Your task to perform on an android device: turn off translation in the chrome app Image 0: 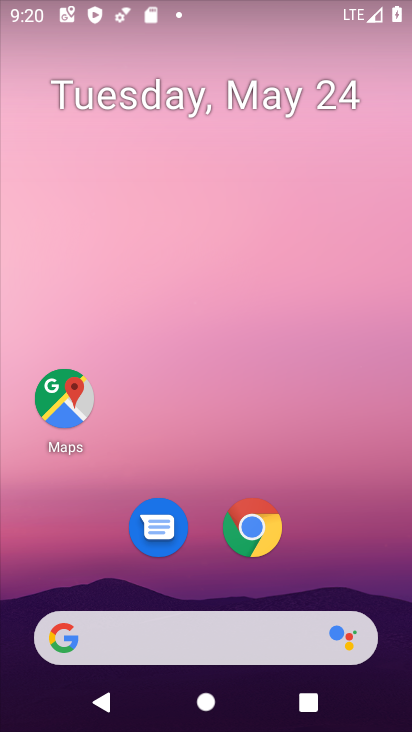
Step 0: click (243, 541)
Your task to perform on an android device: turn off translation in the chrome app Image 1: 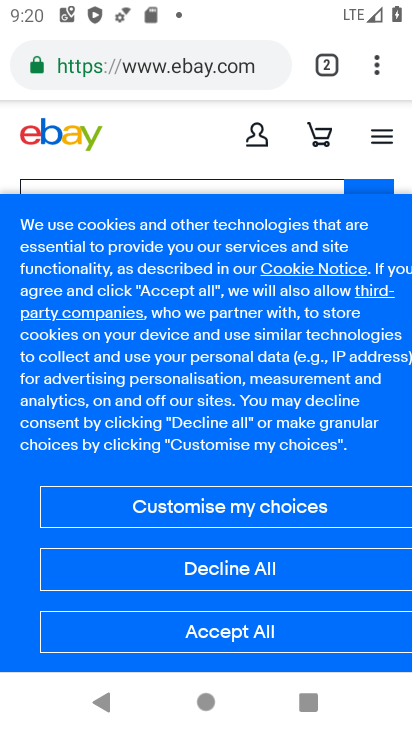
Step 1: click (378, 63)
Your task to perform on an android device: turn off translation in the chrome app Image 2: 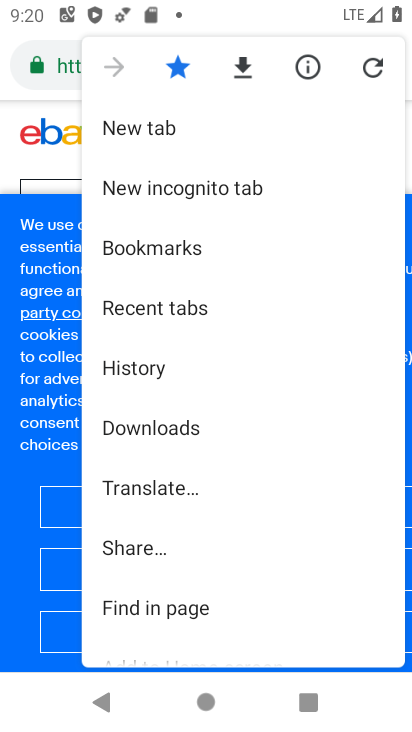
Step 2: drag from (173, 498) to (203, 171)
Your task to perform on an android device: turn off translation in the chrome app Image 3: 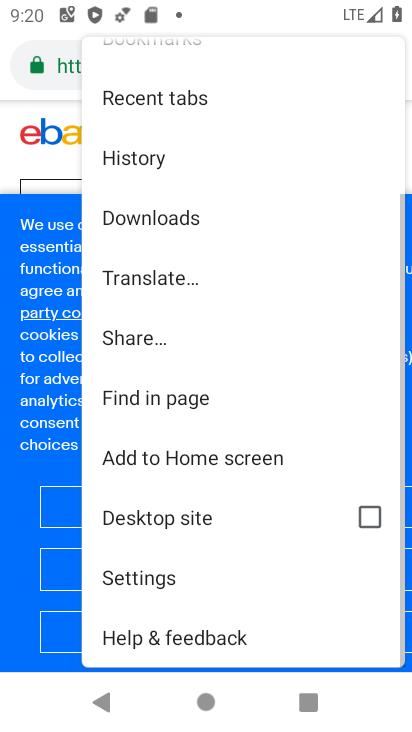
Step 3: click (173, 579)
Your task to perform on an android device: turn off translation in the chrome app Image 4: 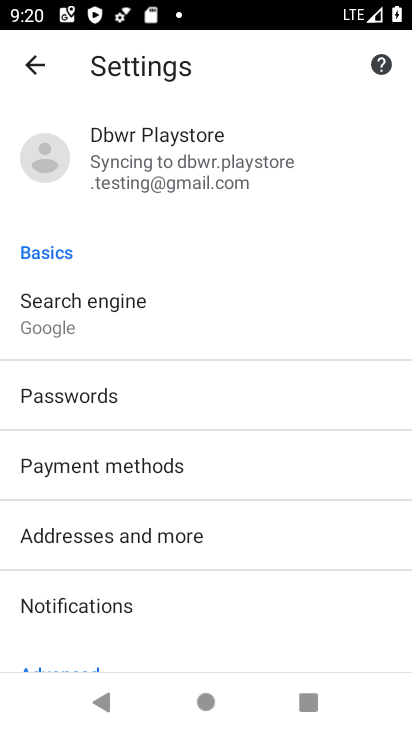
Step 4: drag from (176, 611) to (244, 117)
Your task to perform on an android device: turn off translation in the chrome app Image 5: 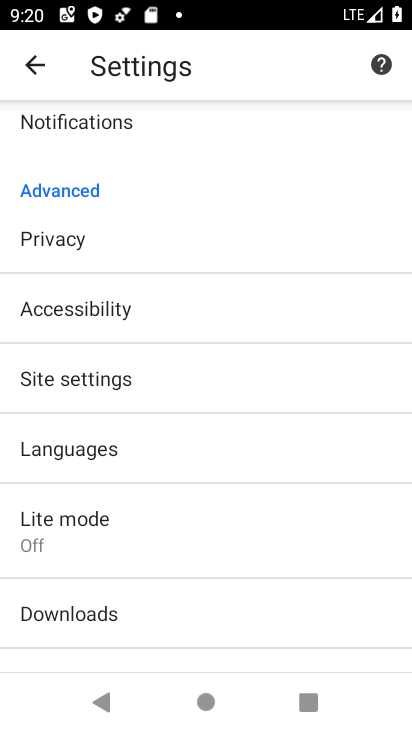
Step 5: drag from (134, 542) to (134, 500)
Your task to perform on an android device: turn off translation in the chrome app Image 6: 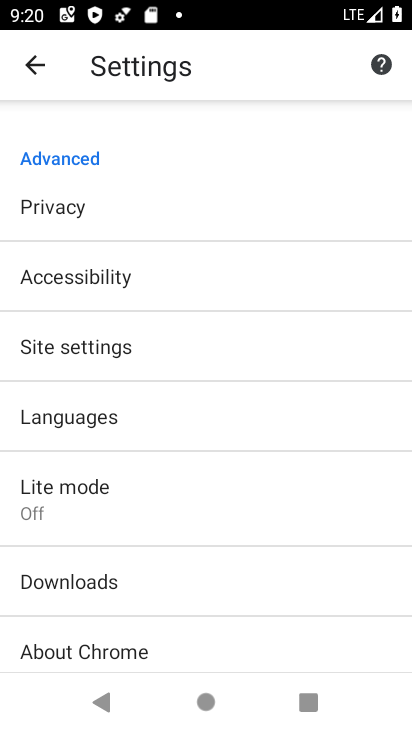
Step 6: click (134, 426)
Your task to perform on an android device: turn off translation in the chrome app Image 7: 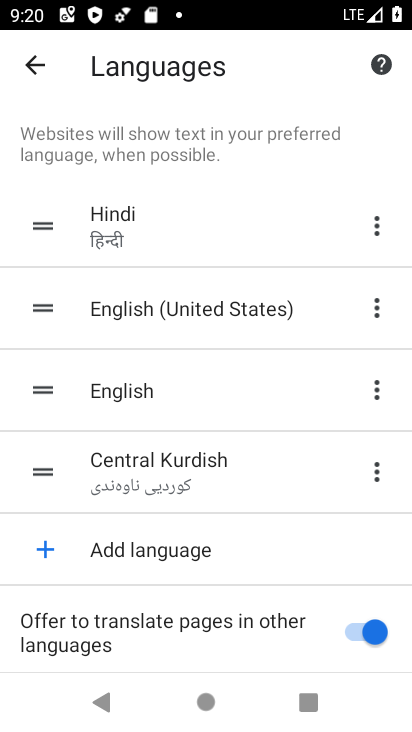
Step 7: drag from (148, 555) to (179, 196)
Your task to perform on an android device: turn off translation in the chrome app Image 8: 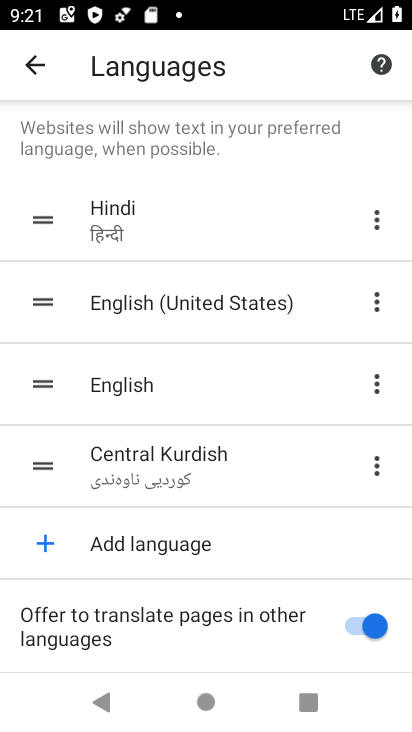
Step 8: click (353, 627)
Your task to perform on an android device: turn off translation in the chrome app Image 9: 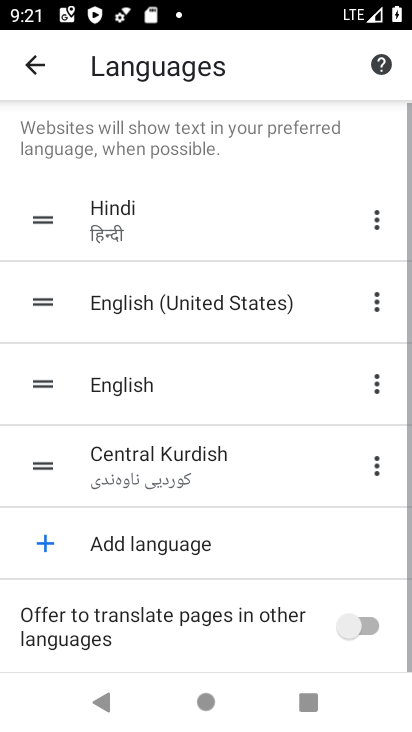
Step 9: task complete